Your task to perform on an android device: Go to accessibility settings Image 0: 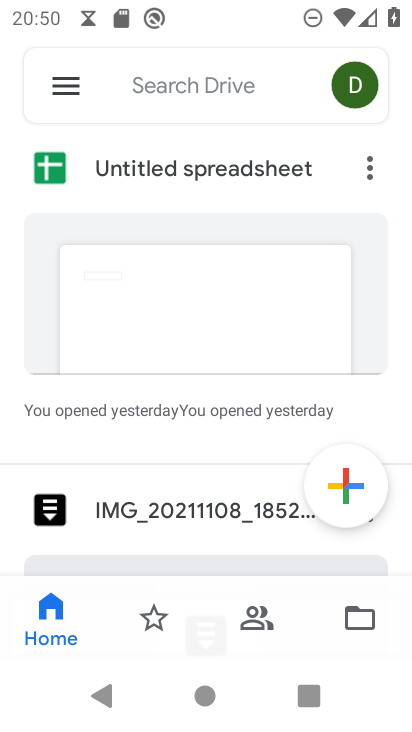
Step 0: press home button
Your task to perform on an android device: Go to accessibility settings Image 1: 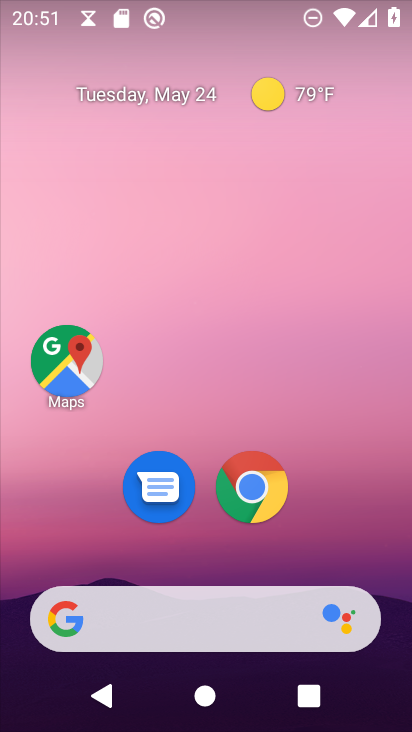
Step 1: drag from (62, 576) to (312, 144)
Your task to perform on an android device: Go to accessibility settings Image 2: 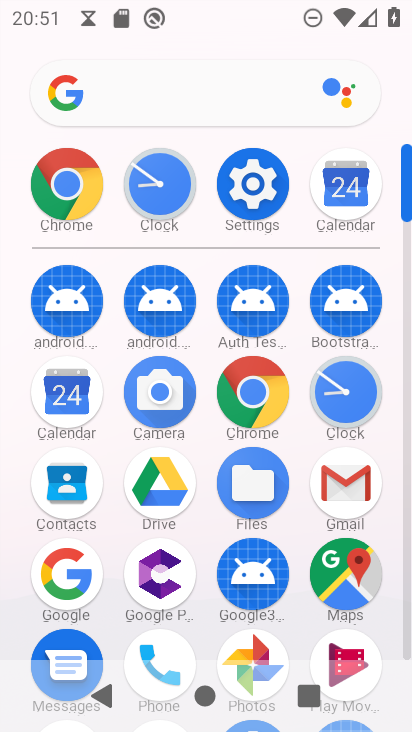
Step 2: click (264, 193)
Your task to perform on an android device: Go to accessibility settings Image 3: 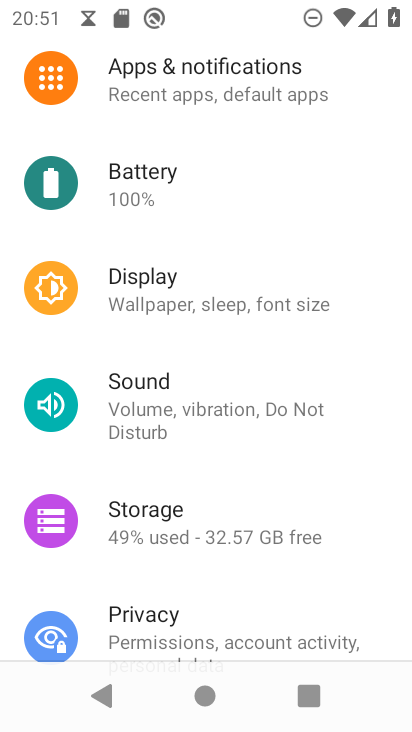
Step 3: drag from (133, 613) to (329, 253)
Your task to perform on an android device: Go to accessibility settings Image 4: 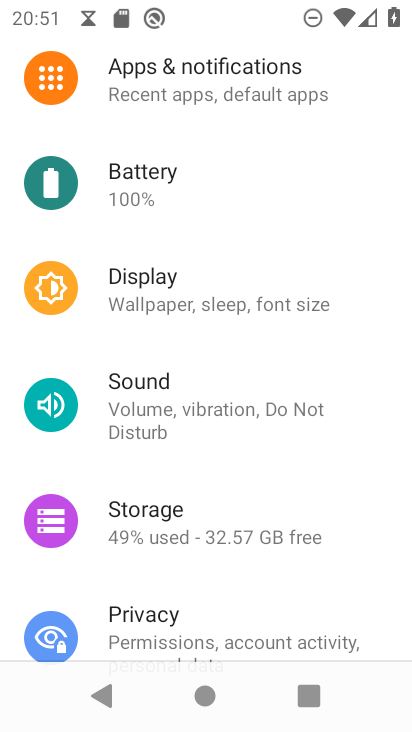
Step 4: drag from (16, 511) to (363, 65)
Your task to perform on an android device: Go to accessibility settings Image 5: 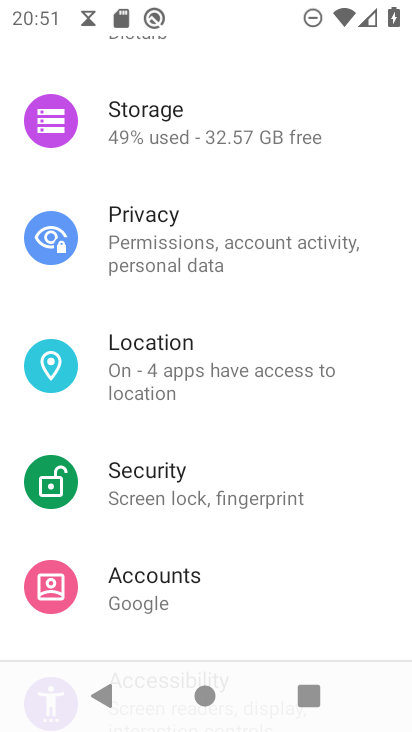
Step 5: drag from (0, 590) to (263, 222)
Your task to perform on an android device: Go to accessibility settings Image 6: 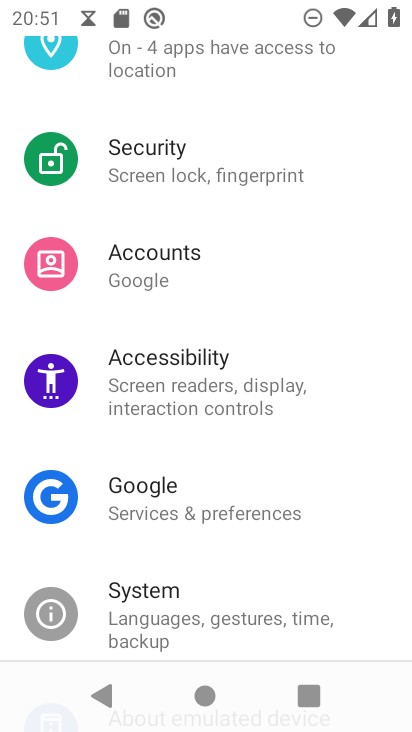
Step 6: click (141, 382)
Your task to perform on an android device: Go to accessibility settings Image 7: 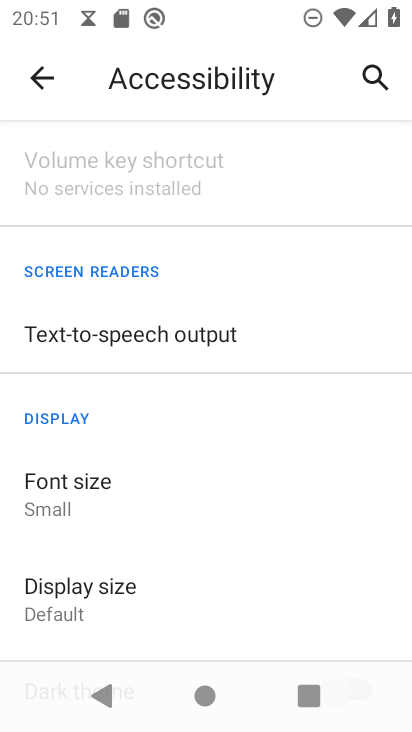
Step 7: task complete